Your task to perform on an android device: change notification settings in the gmail app Image 0: 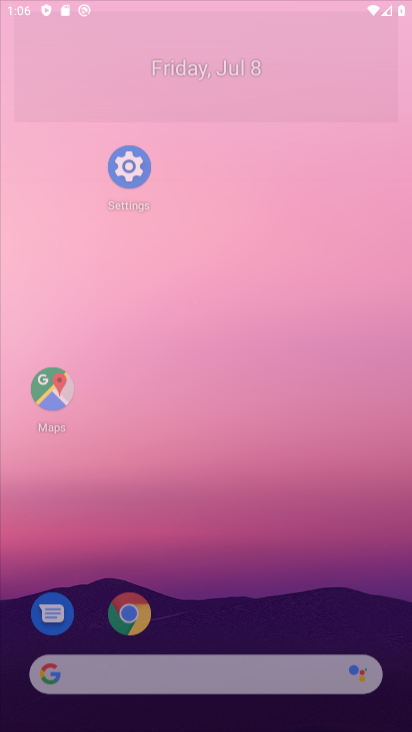
Step 0: click (133, 179)
Your task to perform on an android device: change notification settings in the gmail app Image 1: 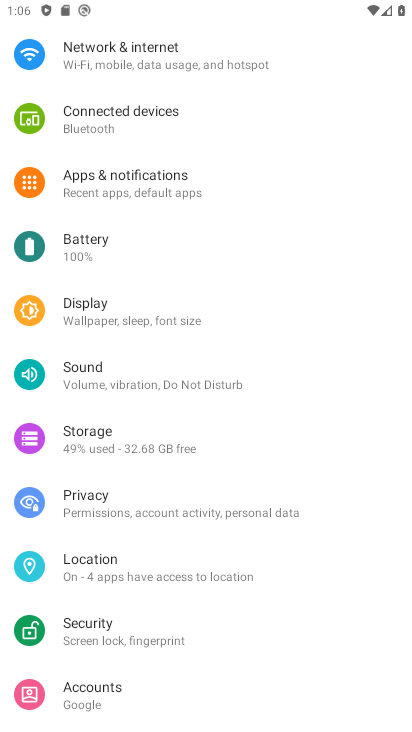
Step 1: drag from (258, 87) to (285, 402)
Your task to perform on an android device: change notification settings in the gmail app Image 2: 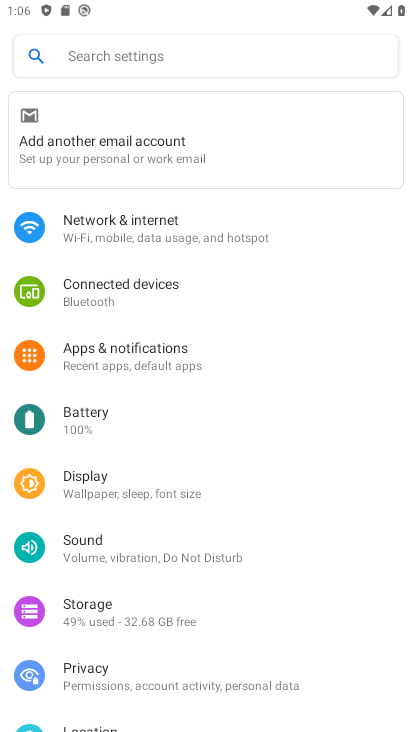
Step 2: click (253, 235)
Your task to perform on an android device: change notification settings in the gmail app Image 3: 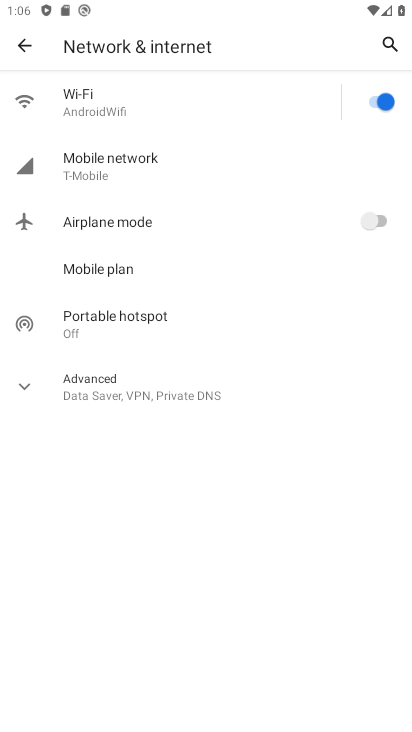
Step 3: click (190, 102)
Your task to perform on an android device: change notification settings in the gmail app Image 4: 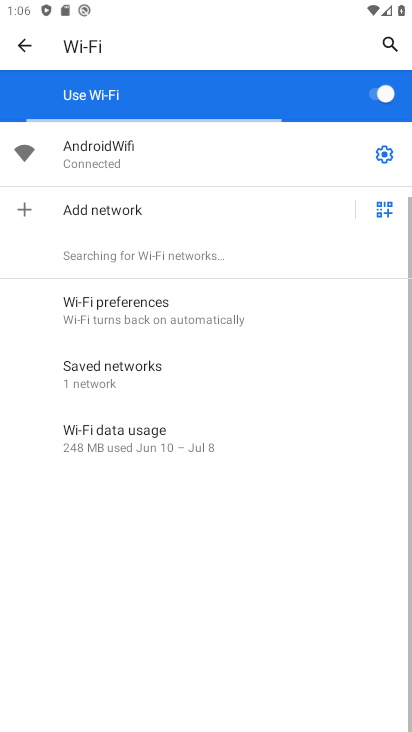
Step 4: click (388, 150)
Your task to perform on an android device: change notification settings in the gmail app Image 5: 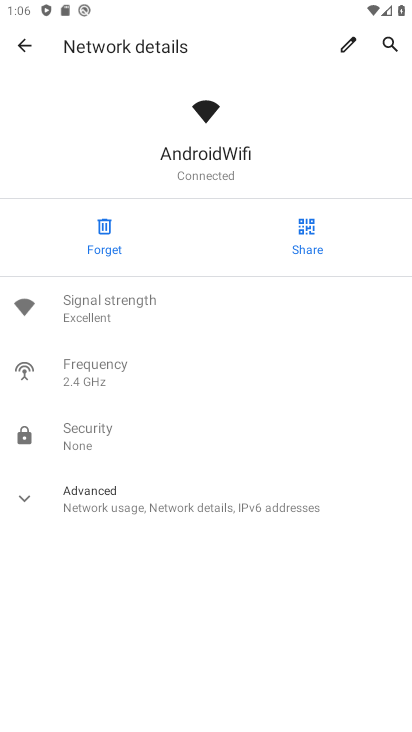
Step 5: task complete